Your task to perform on an android device: toggle javascript in the chrome app Image 0: 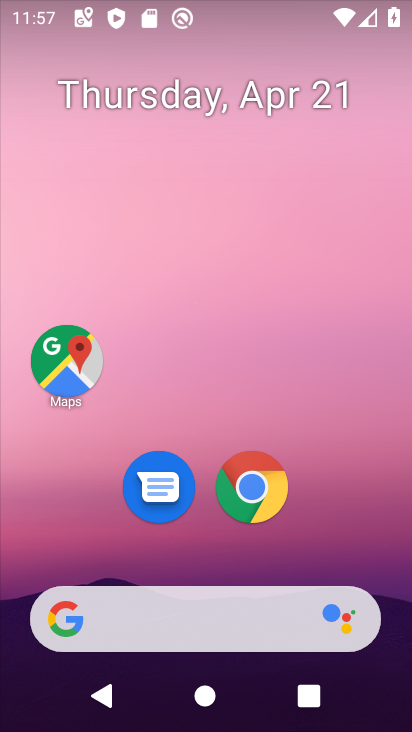
Step 0: click (262, 482)
Your task to perform on an android device: toggle javascript in the chrome app Image 1: 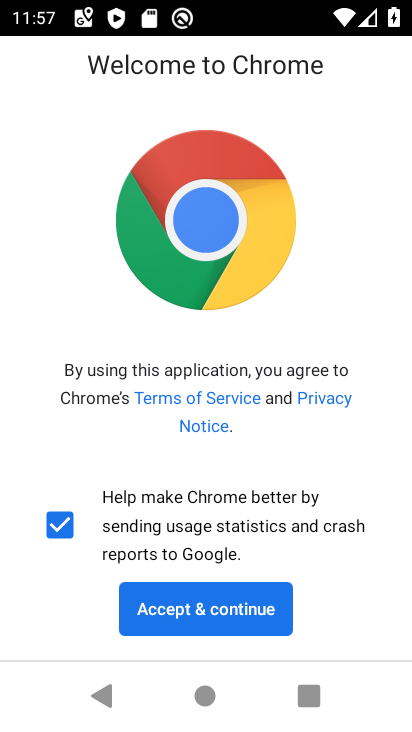
Step 1: click (271, 618)
Your task to perform on an android device: toggle javascript in the chrome app Image 2: 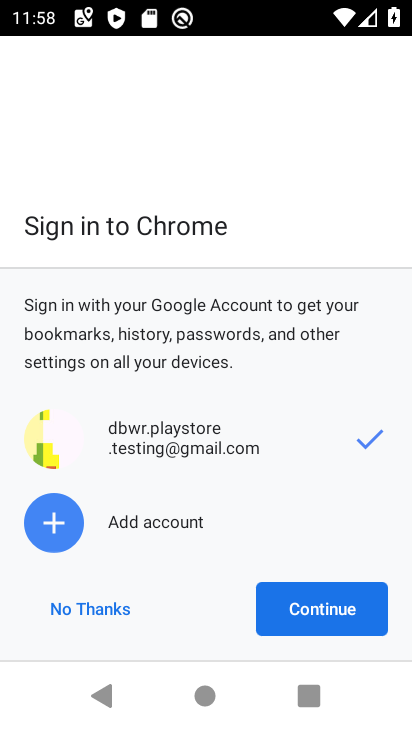
Step 2: click (299, 610)
Your task to perform on an android device: toggle javascript in the chrome app Image 3: 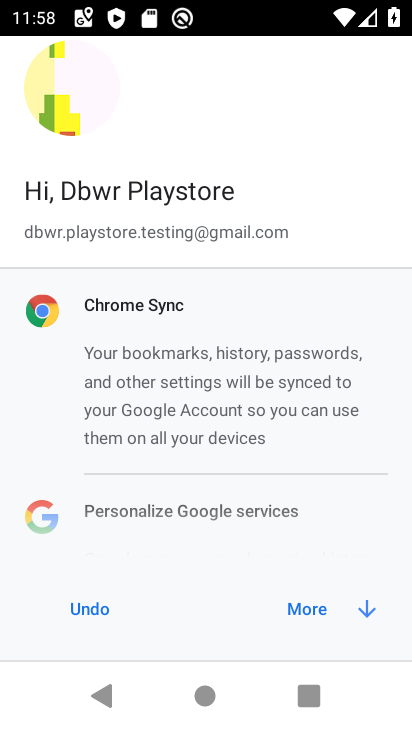
Step 3: click (316, 611)
Your task to perform on an android device: toggle javascript in the chrome app Image 4: 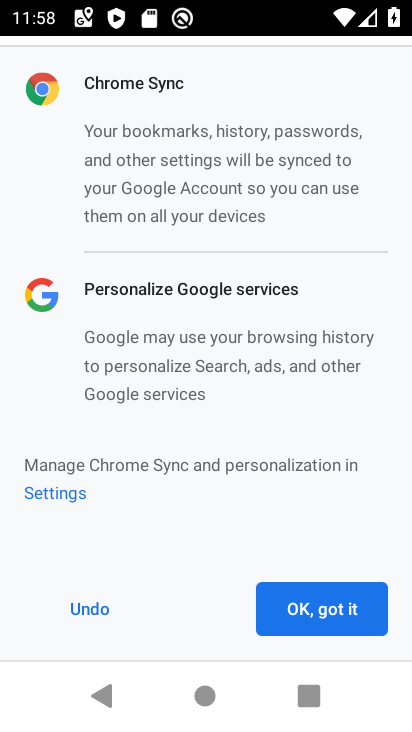
Step 4: click (335, 603)
Your task to perform on an android device: toggle javascript in the chrome app Image 5: 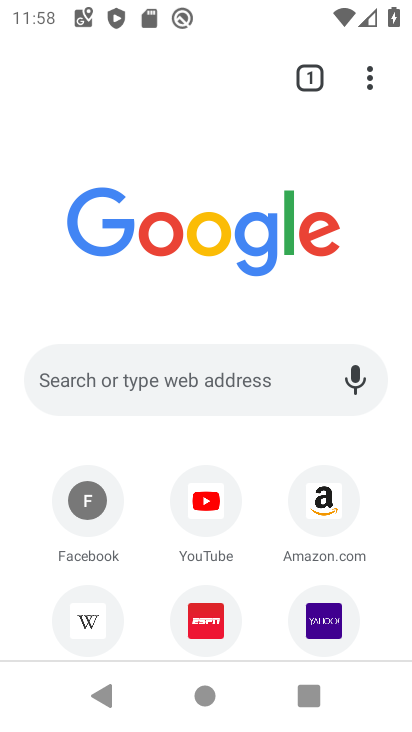
Step 5: click (378, 91)
Your task to perform on an android device: toggle javascript in the chrome app Image 6: 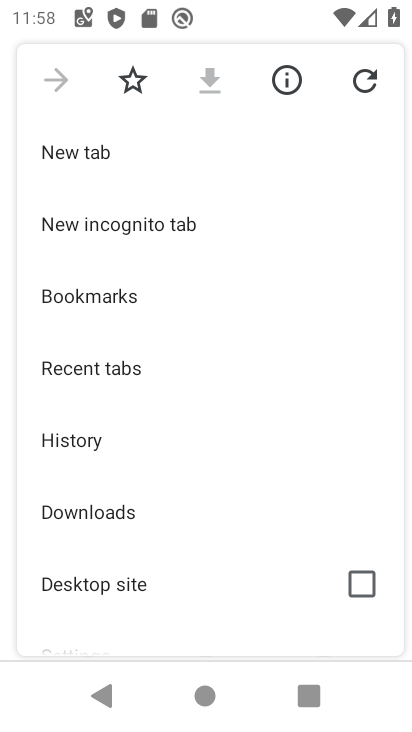
Step 6: drag from (112, 594) to (142, 137)
Your task to perform on an android device: toggle javascript in the chrome app Image 7: 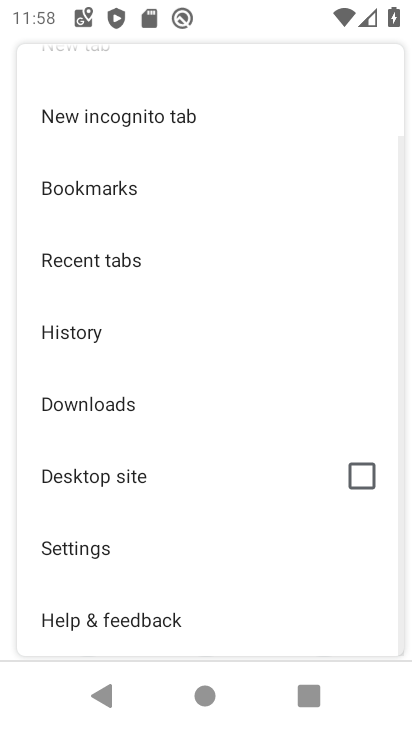
Step 7: click (66, 567)
Your task to perform on an android device: toggle javascript in the chrome app Image 8: 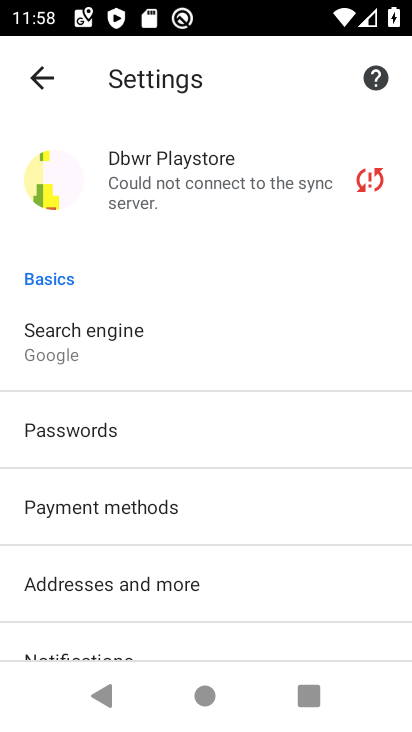
Step 8: drag from (149, 566) to (179, 207)
Your task to perform on an android device: toggle javascript in the chrome app Image 9: 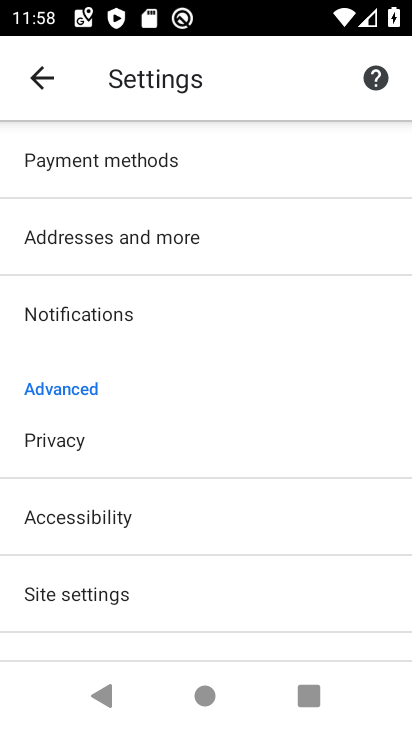
Step 9: drag from (95, 570) to (84, 127)
Your task to perform on an android device: toggle javascript in the chrome app Image 10: 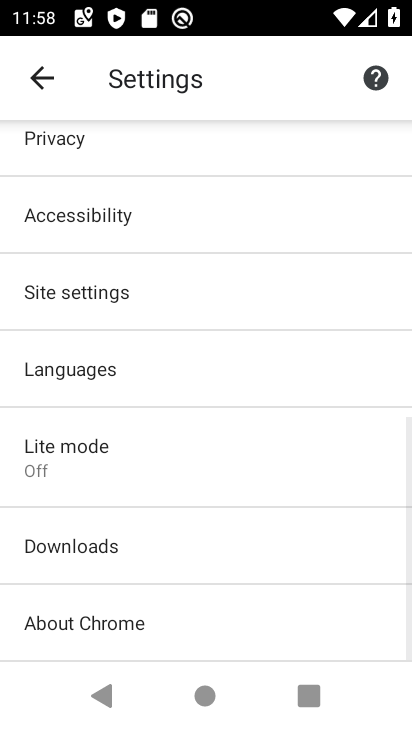
Step 10: click (71, 289)
Your task to perform on an android device: toggle javascript in the chrome app Image 11: 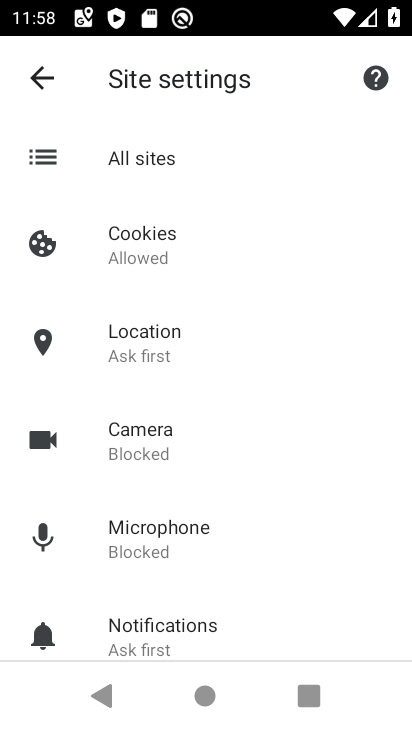
Step 11: drag from (207, 577) to (201, 263)
Your task to perform on an android device: toggle javascript in the chrome app Image 12: 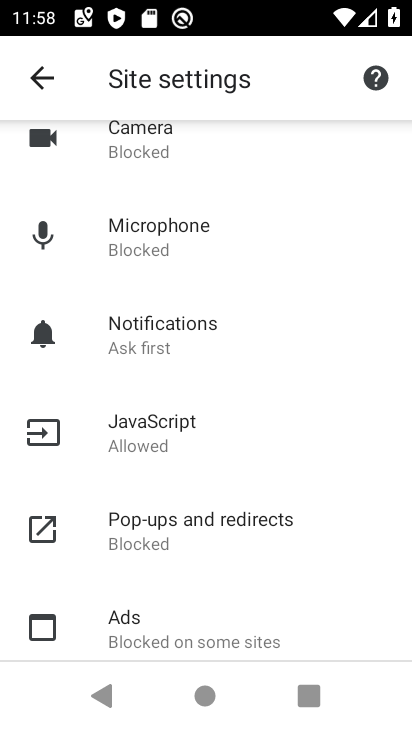
Step 12: click (144, 453)
Your task to perform on an android device: toggle javascript in the chrome app Image 13: 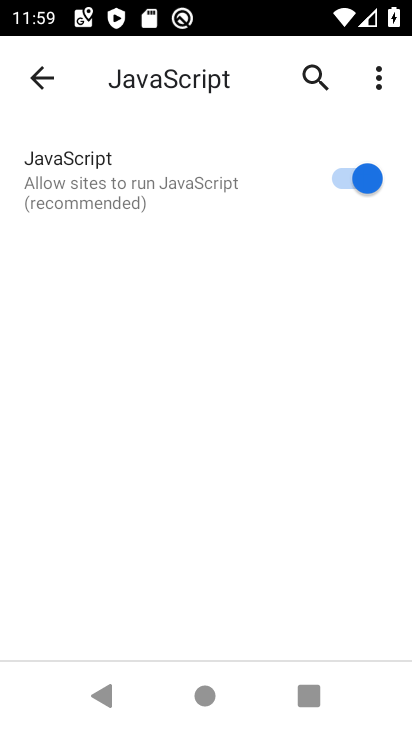
Step 13: click (353, 178)
Your task to perform on an android device: toggle javascript in the chrome app Image 14: 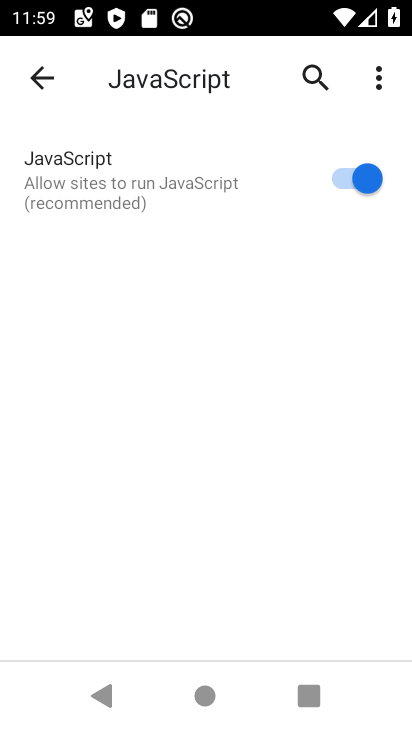
Step 14: click (353, 178)
Your task to perform on an android device: toggle javascript in the chrome app Image 15: 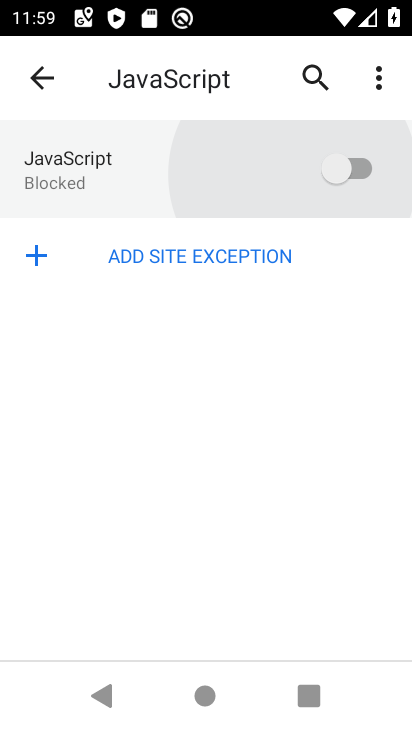
Step 15: click (353, 178)
Your task to perform on an android device: toggle javascript in the chrome app Image 16: 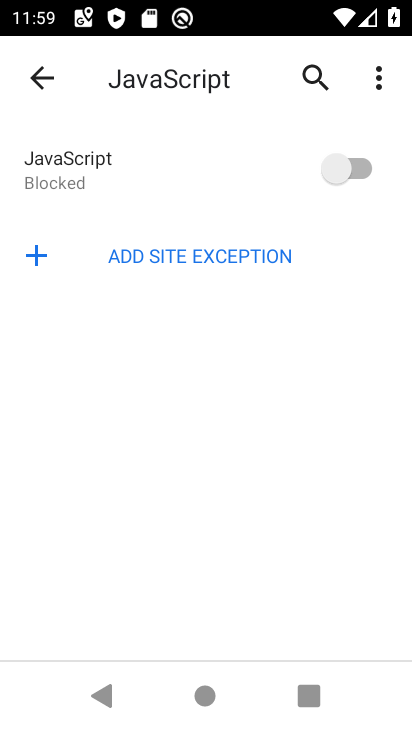
Step 16: task complete